Your task to perform on an android device: open app "Etsy: Buy & Sell Unique Items" (install if not already installed) and go to login screen Image 0: 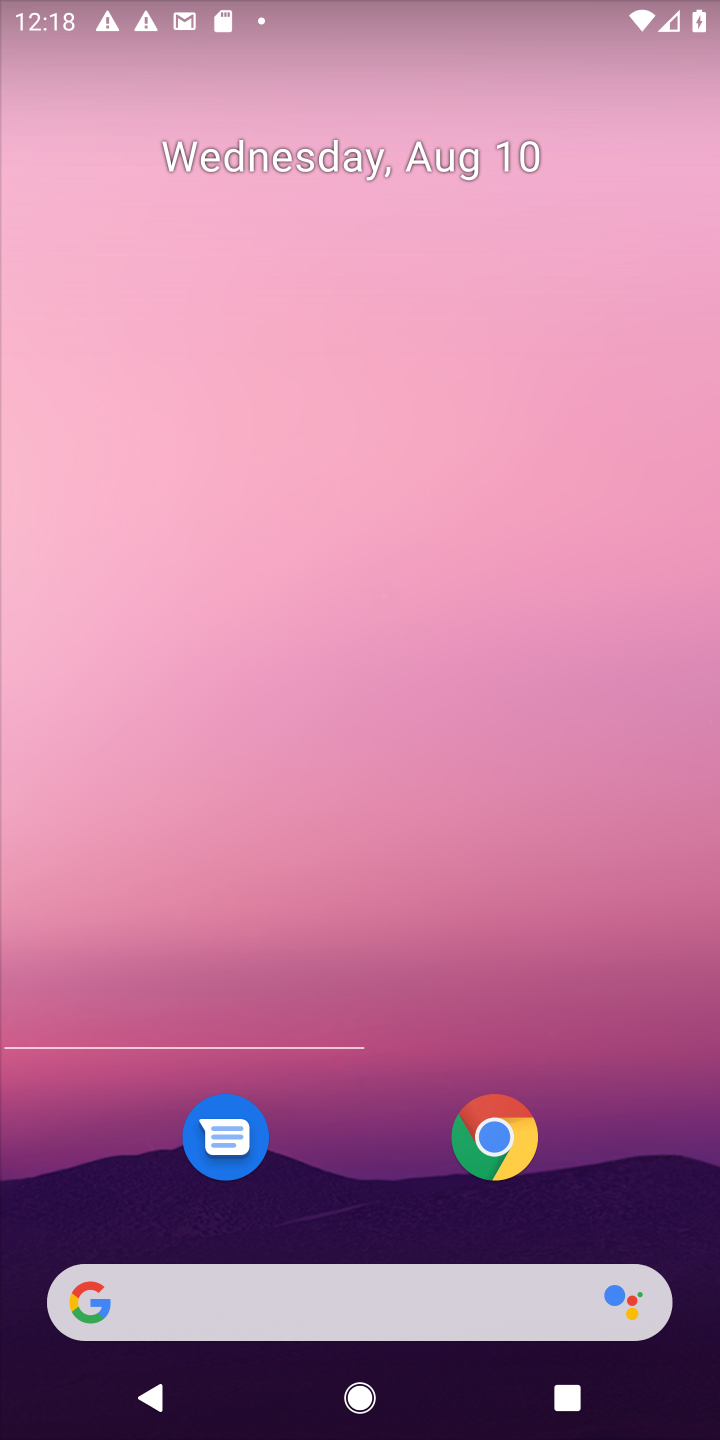
Step 0: press home button
Your task to perform on an android device: open app "Etsy: Buy & Sell Unique Items" (install if not already installed) and go to login screen Image 1: 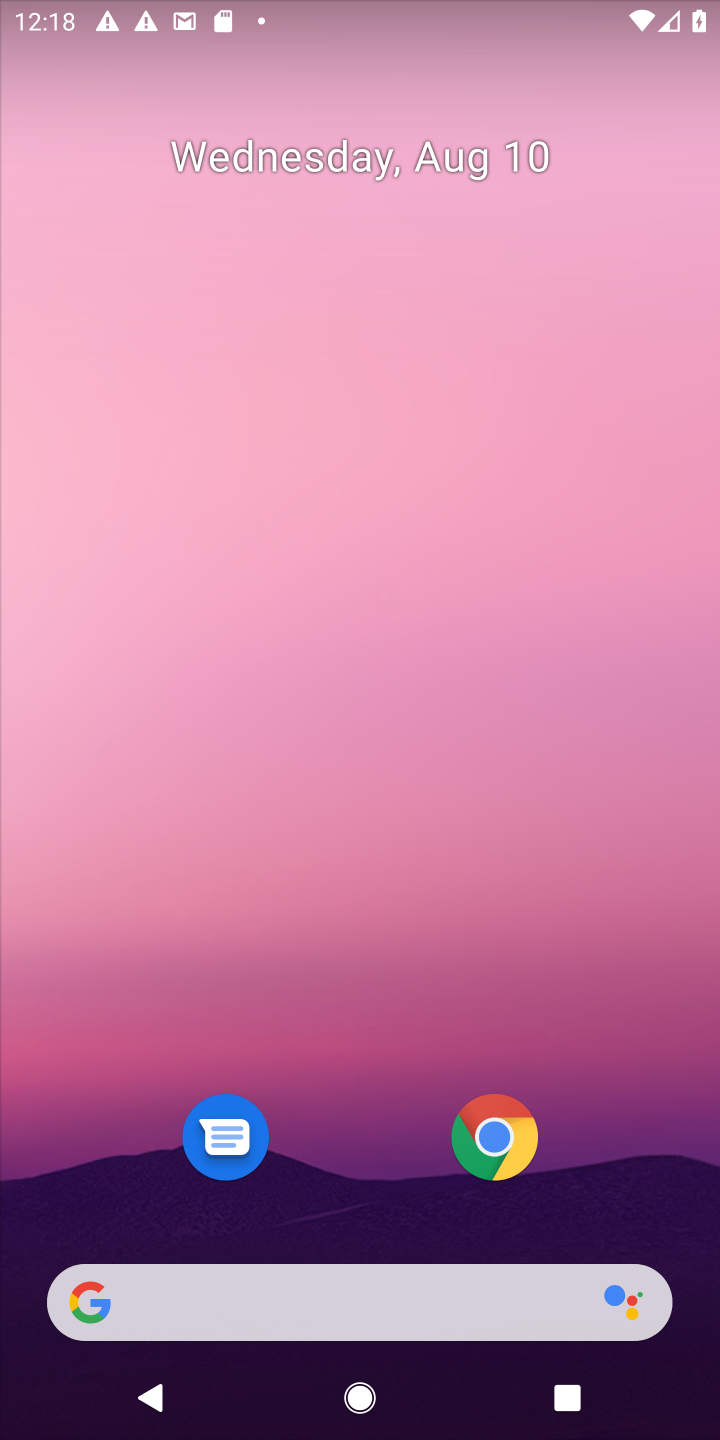
Step 1: drag from (372, 1229) to (294, 168)
Your task to perform on an android device: open app "Etsy: Buy & Sell Unique Items" (install if not already installed) and go to login screen Image 2: 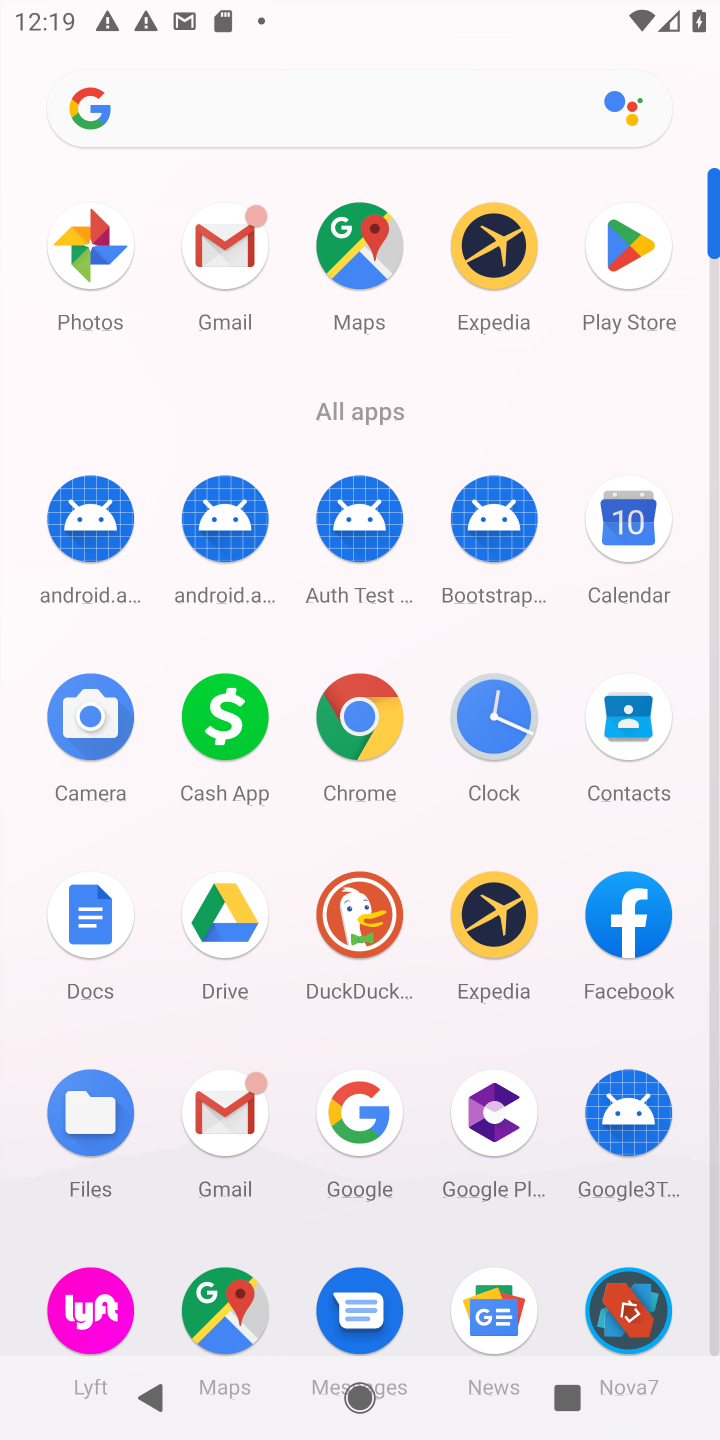
Step 2: click (627, 233)
Your task to perform on an android device: open app "Etsy: Buy & Sell Unique Items" (install if not already installed) and go to login screen Image 3: 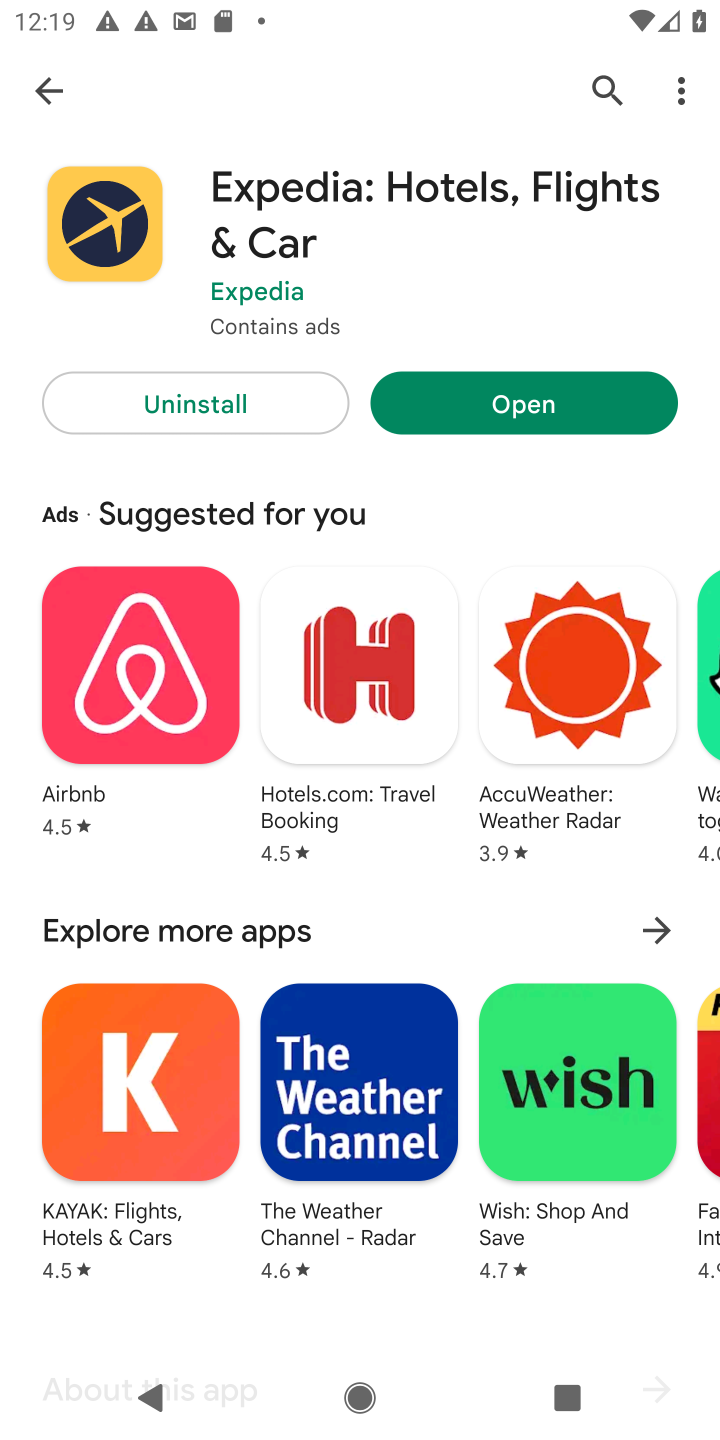
Step 3: click (594, 81)
Your task to perform on an android device: open app "Etsy: Buy & Sell Unique Items" (install if not already installed) and go to login screen Image 4: 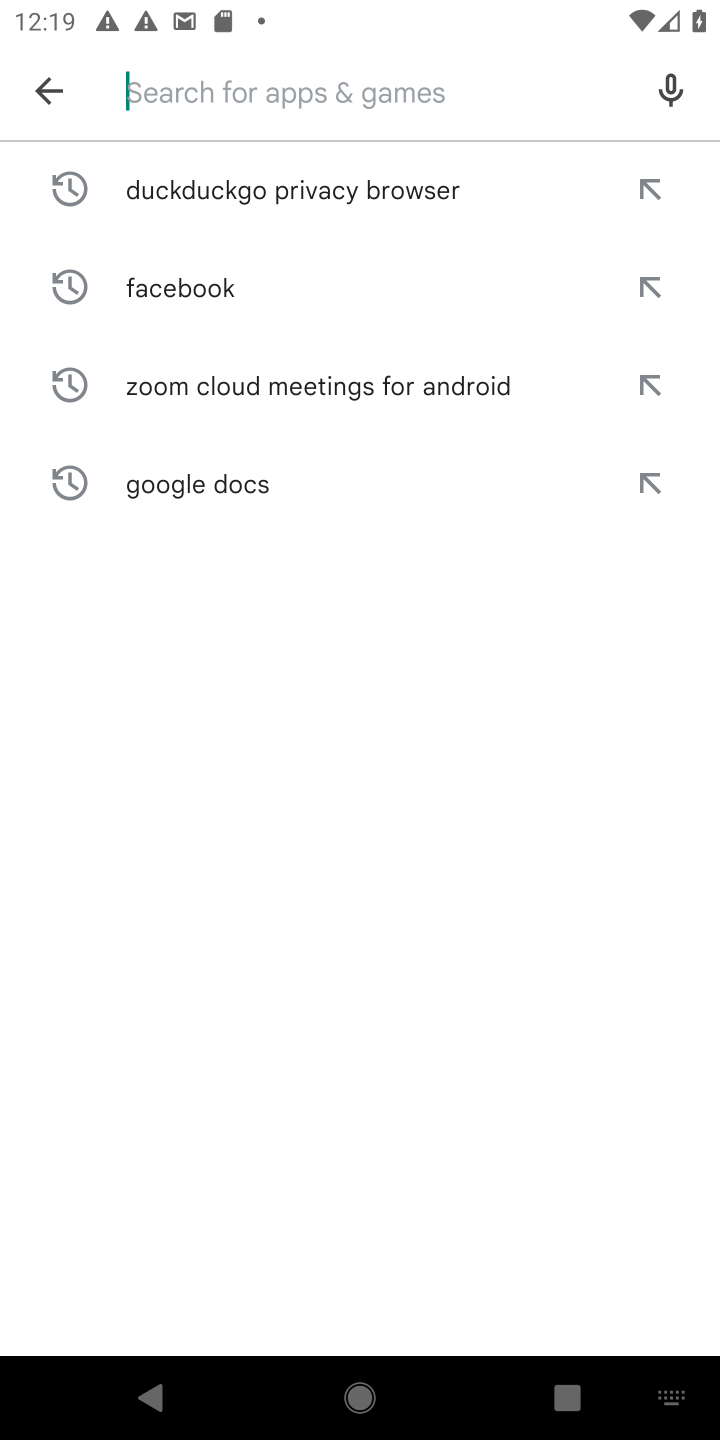
Step 4: type "Etsy: Buy & Sell Unique Items"
Your task to perform on an android device: open app "Etsy: Buy & Sell Unique Items" (install if not already installed) and go to login screen Image 5: 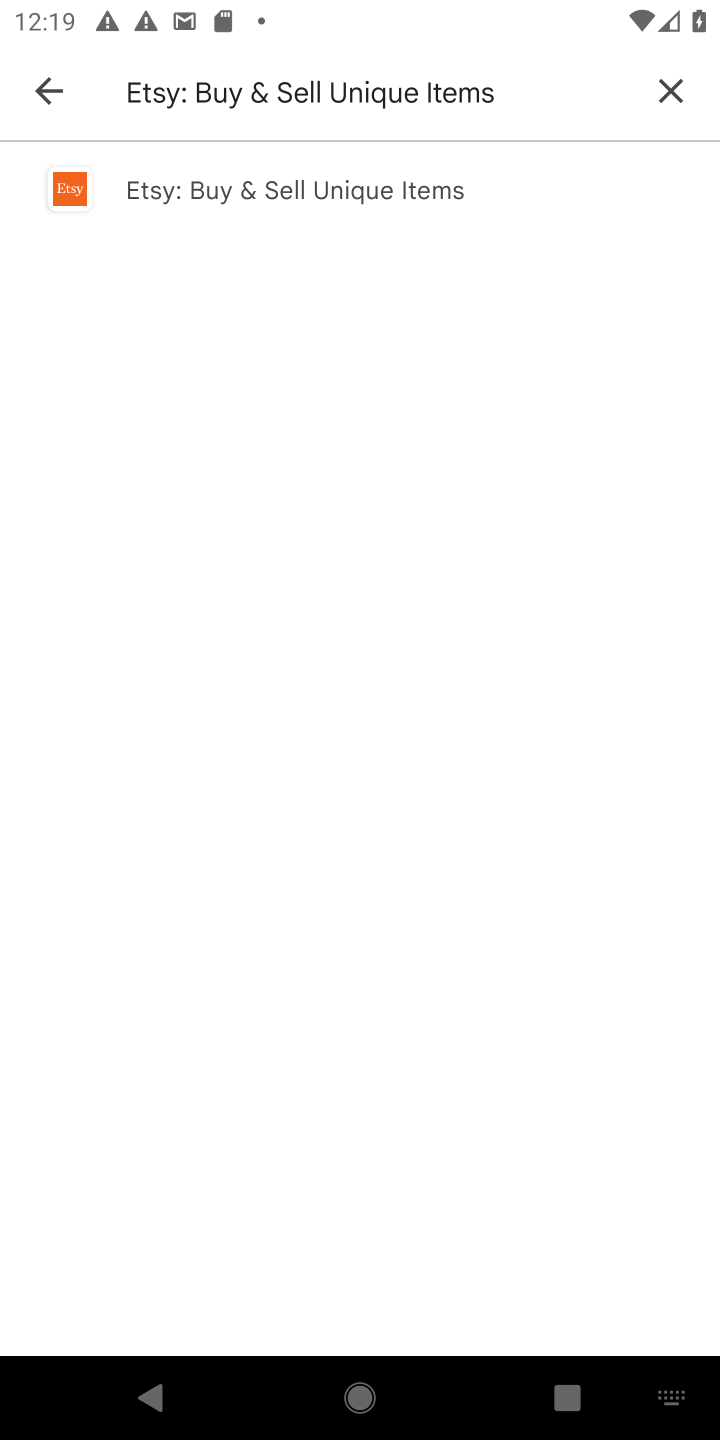
Step 5: click (314, 188)
Your task to perform on an android device: open app "Etsy: Buy & Sell Unique Items" (install if not already installed) and go to login screen Image 6: 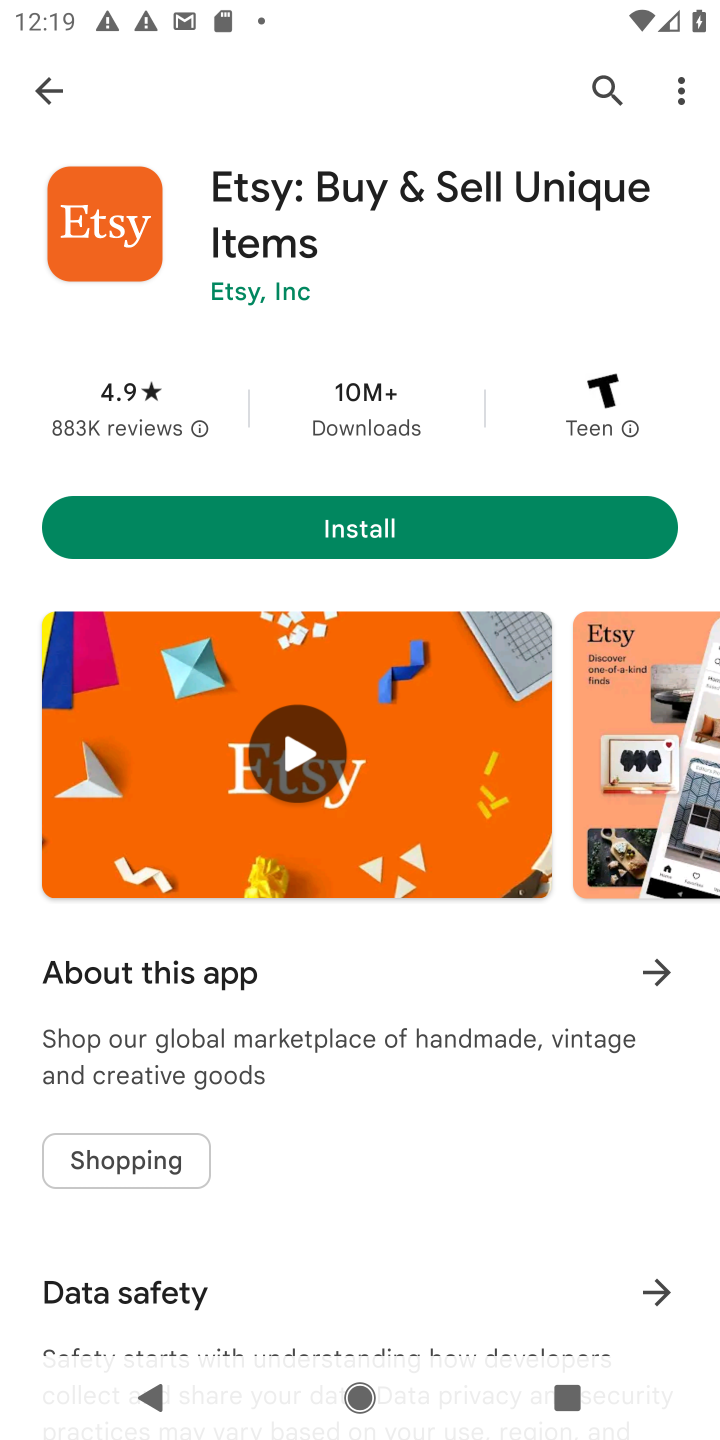
Step 6: click (350, 523)
Your task to perform on an android device: open app "Etsy: Buy & Sell Unique Items" (install if not already installed) and go to login screen Image 7: 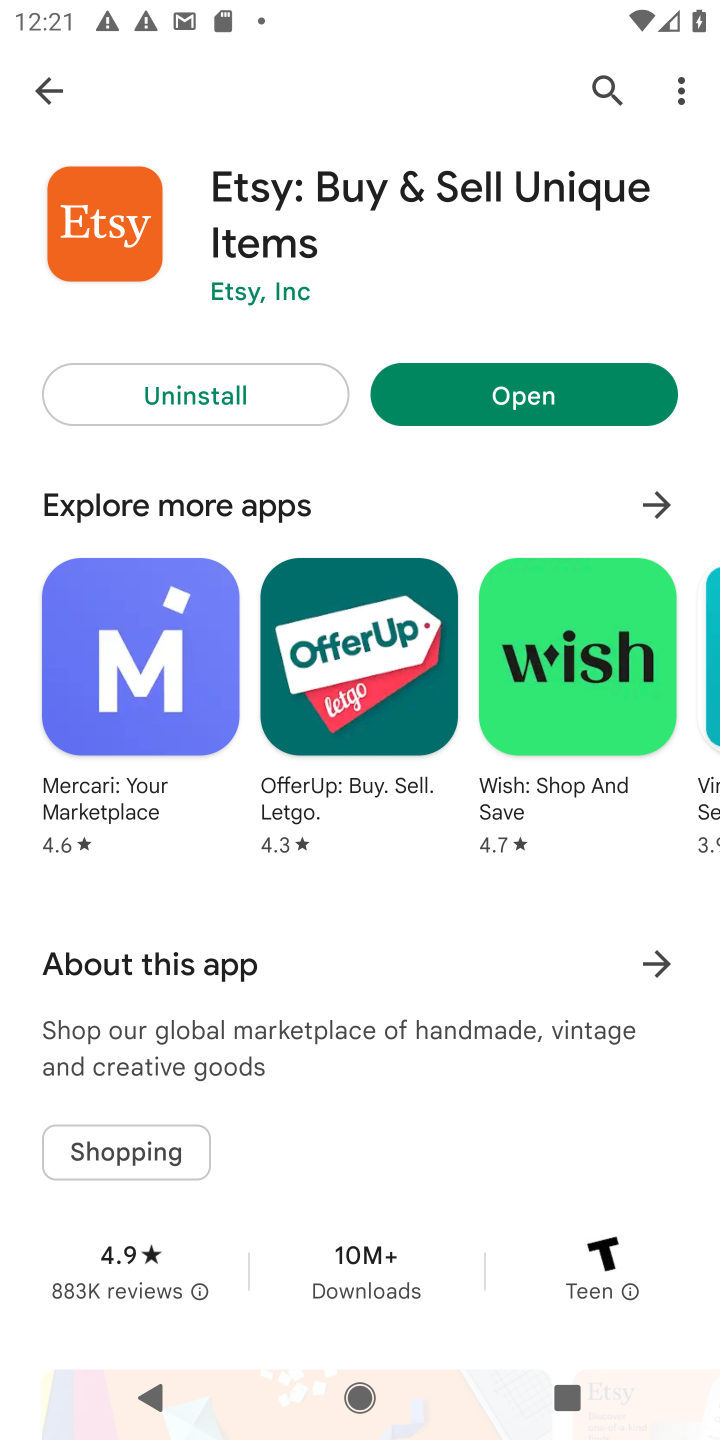
Step 7: click (512, 404)
Your task to perform on an android device: open app "Etsy: Buy & Sell Unique Items" (install if not already installed) and go to login screen Image 8: 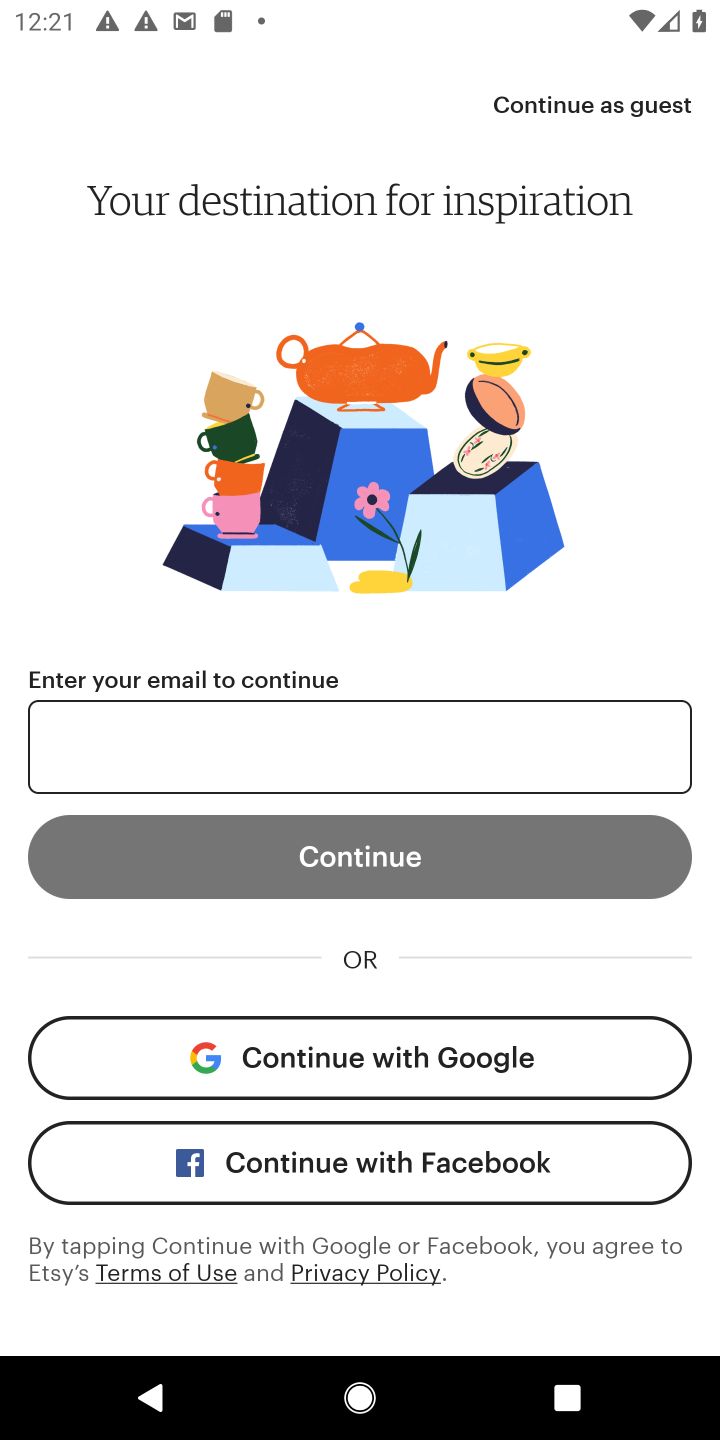
Step 8: task complete